Your task to perform on an android device: What is the news today? Image 0: 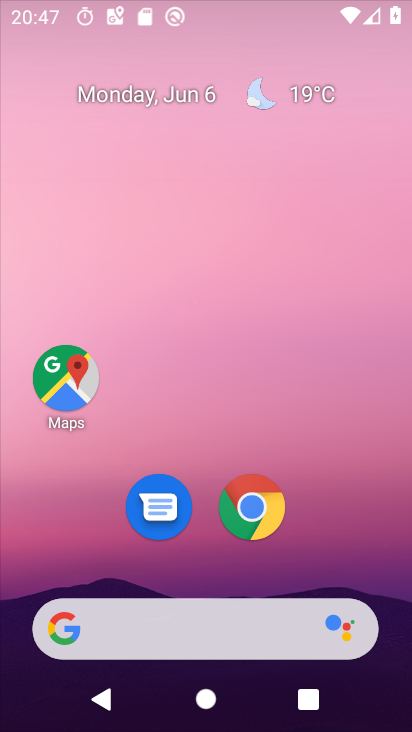
Step 0: press home button
Your task to perform on an android device: What is the news today? Image 1: 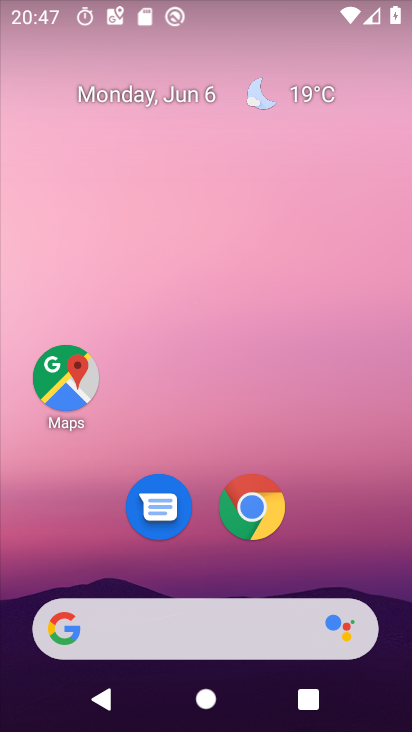
Step 1: click (267, 509)
Your task to perform on an android device: What is the news today? Image 2: 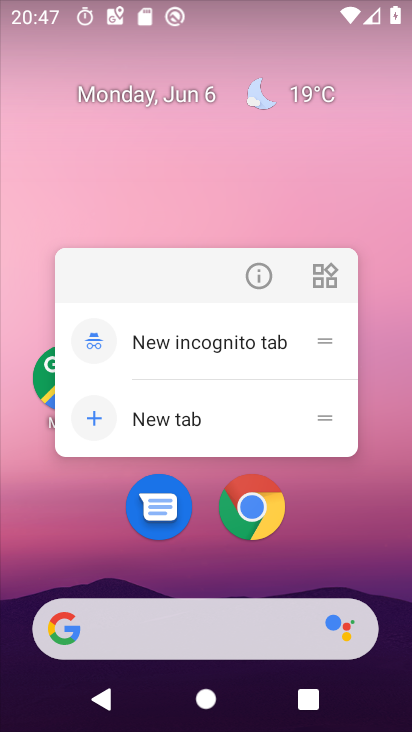
Step 2: click (267, 509)
Your task to perform on an android device: What is the news today? Image 3: 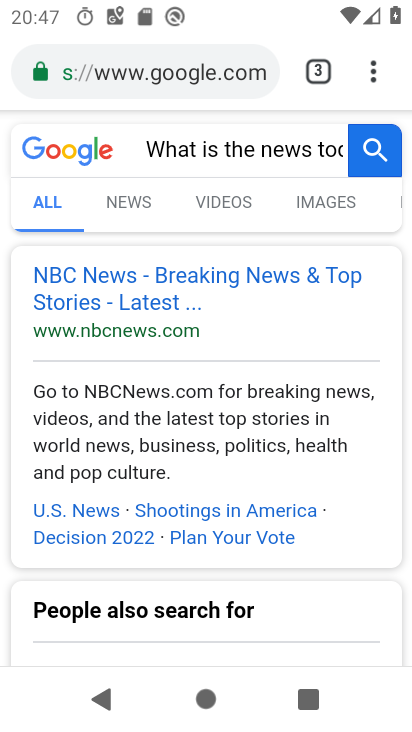
Step 3: task complete